Your task to perform on an android device: What's on my calendar tomorrow? Image 0: 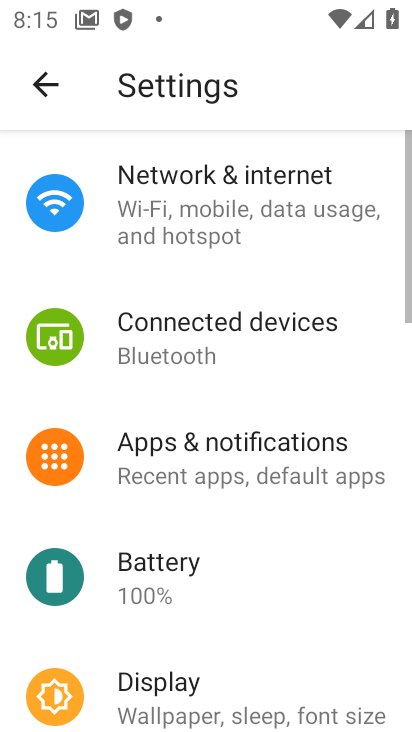
Step 0: press home button
Your task to perform on an android device: What's on my calendar tomorrow? Image 1: 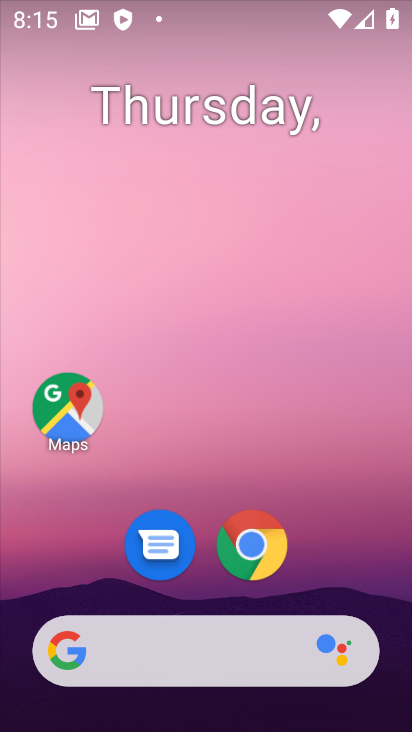
Step 1: click (225, 119)
Your task to perform on an android device: What's on my calendar tomorrow? Image 2: 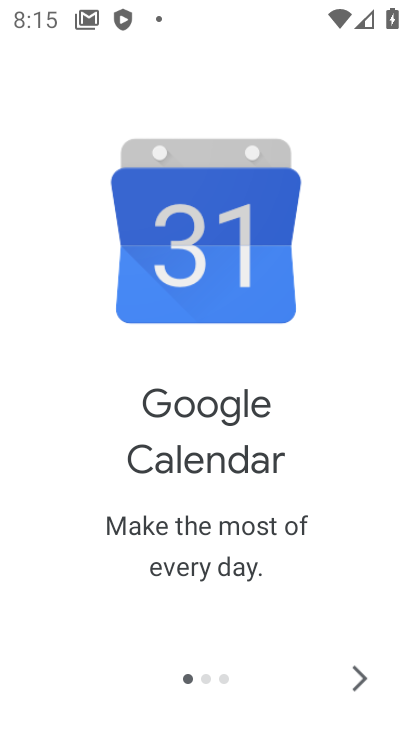
Step 2: click (362, 687)
Your task to perform on an android device: What's on my calendar tomorrow? Image 3: 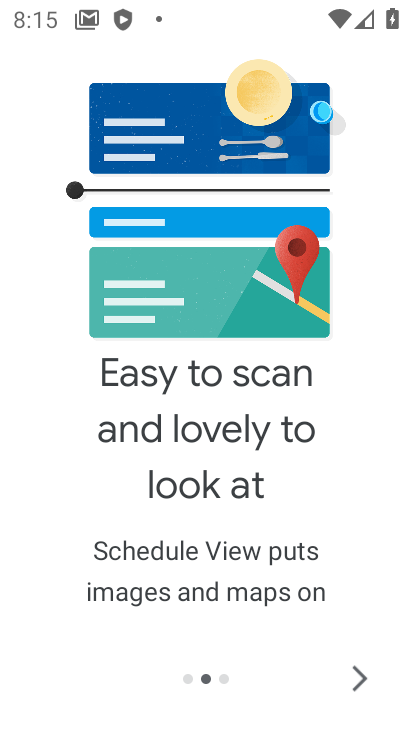
Step 3: click (362, 687)
Your task to perform on an android device: What's on my calendar tomorrow? Image 4: 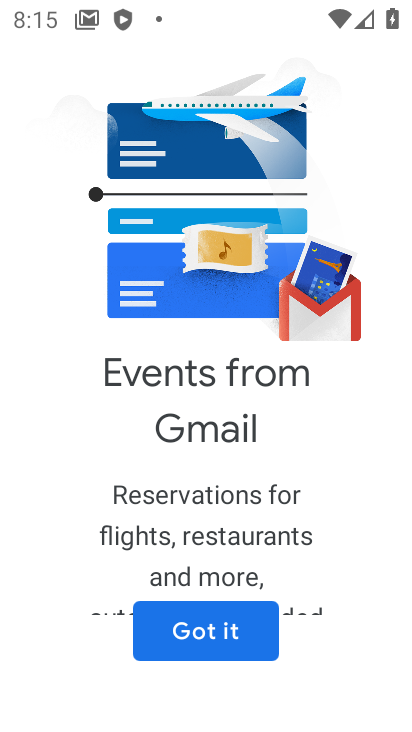
Step 4: click (157, 626)
Your task to perform on an android device: What's on my calendar tomorrow? Image 5: 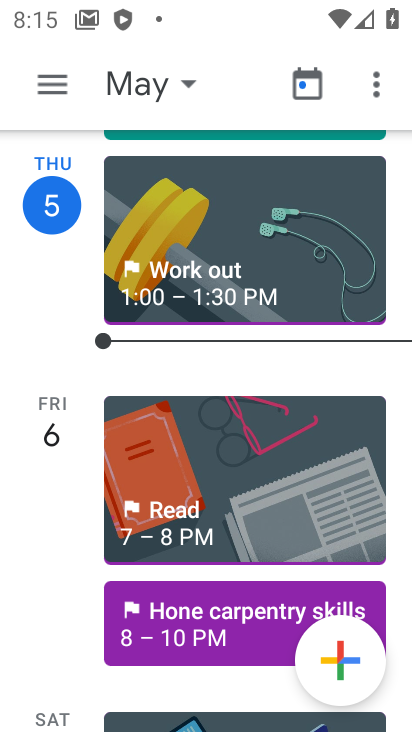
Step 5: click (174, 100)
Your task to perform on an android device: What's on my calendar tomorrow? Image 6: 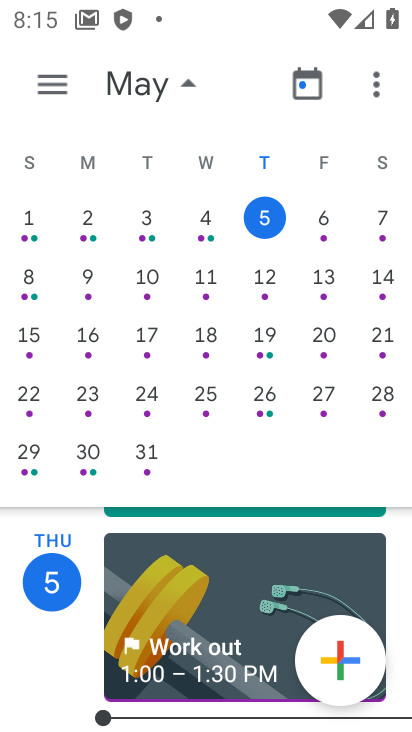
Step 6: click (326, 236)
Your task to perform on an android device: What's on my calendar tomorrow? Image 7: 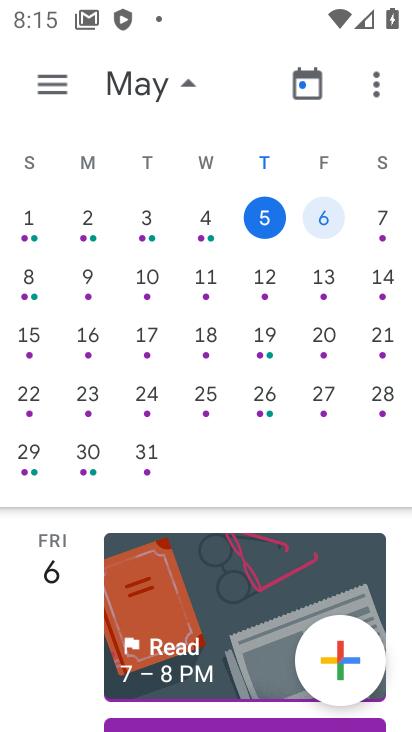
Step 7: task complete